Your task to perform on an android device: Go to CNN.com Image 0: 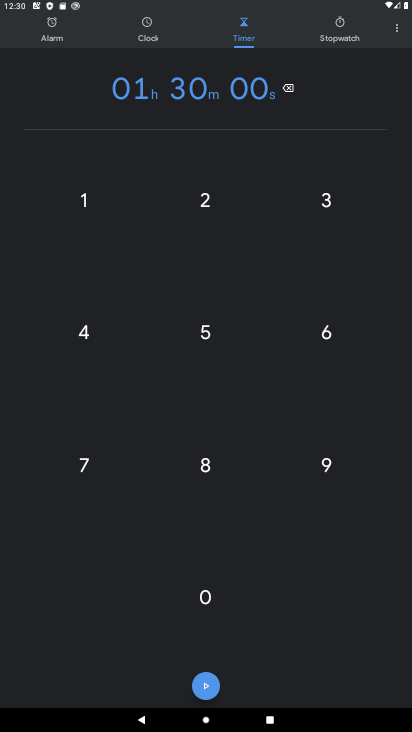
Step 0: press home button
Your task to perform on an android device: Go to CNN.com Image 1: 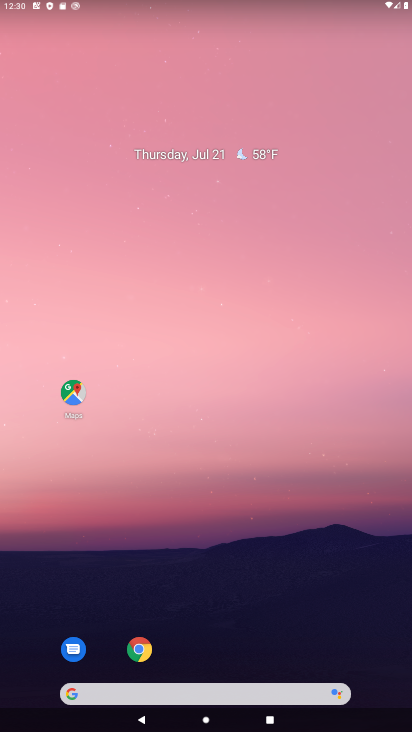
Step 1: click (138, 650)
Your task to perform on an android device: Go to CNN.com Image 2: 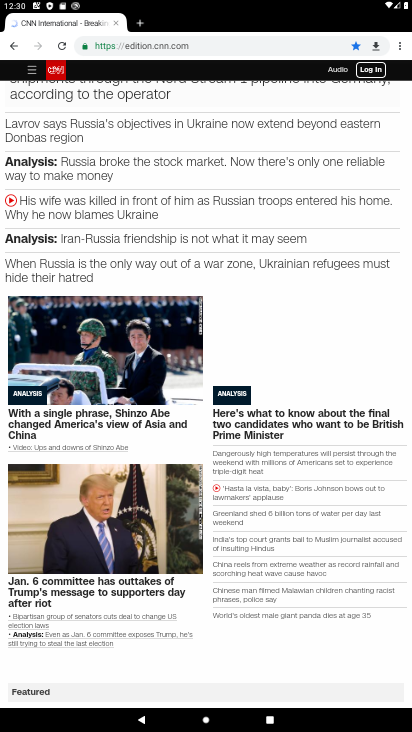
Step 2: click (202, 42)
Your task to perform on an android device: Go to CNN.com Image 3: 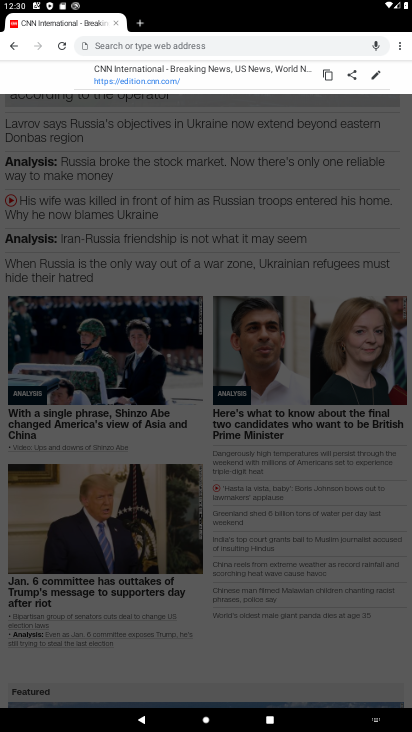
Step 3: type "CNN.com"
Your task to perform on an android device: Go to CNN.com Image 4: 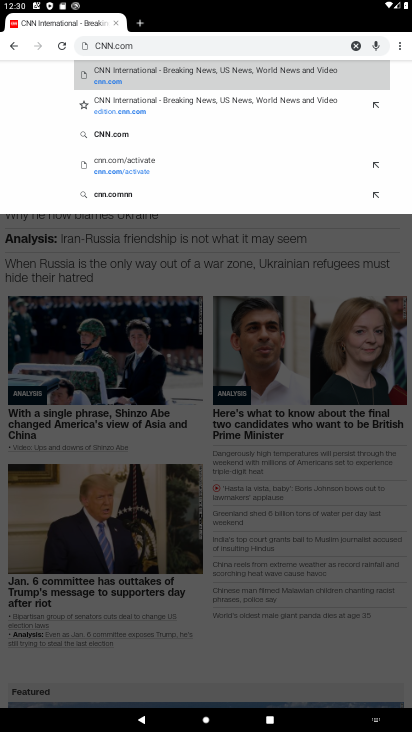
Step 4: click (122, 69)
Your task to perform on an android device: Go to CNN.com Image 5: 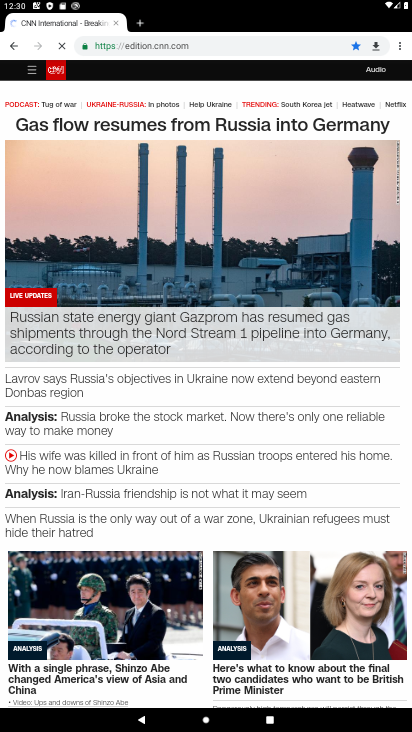
Step 5: task complete